Your task to perform on an android device: Search for pizza restaurants on Maps Image 0: 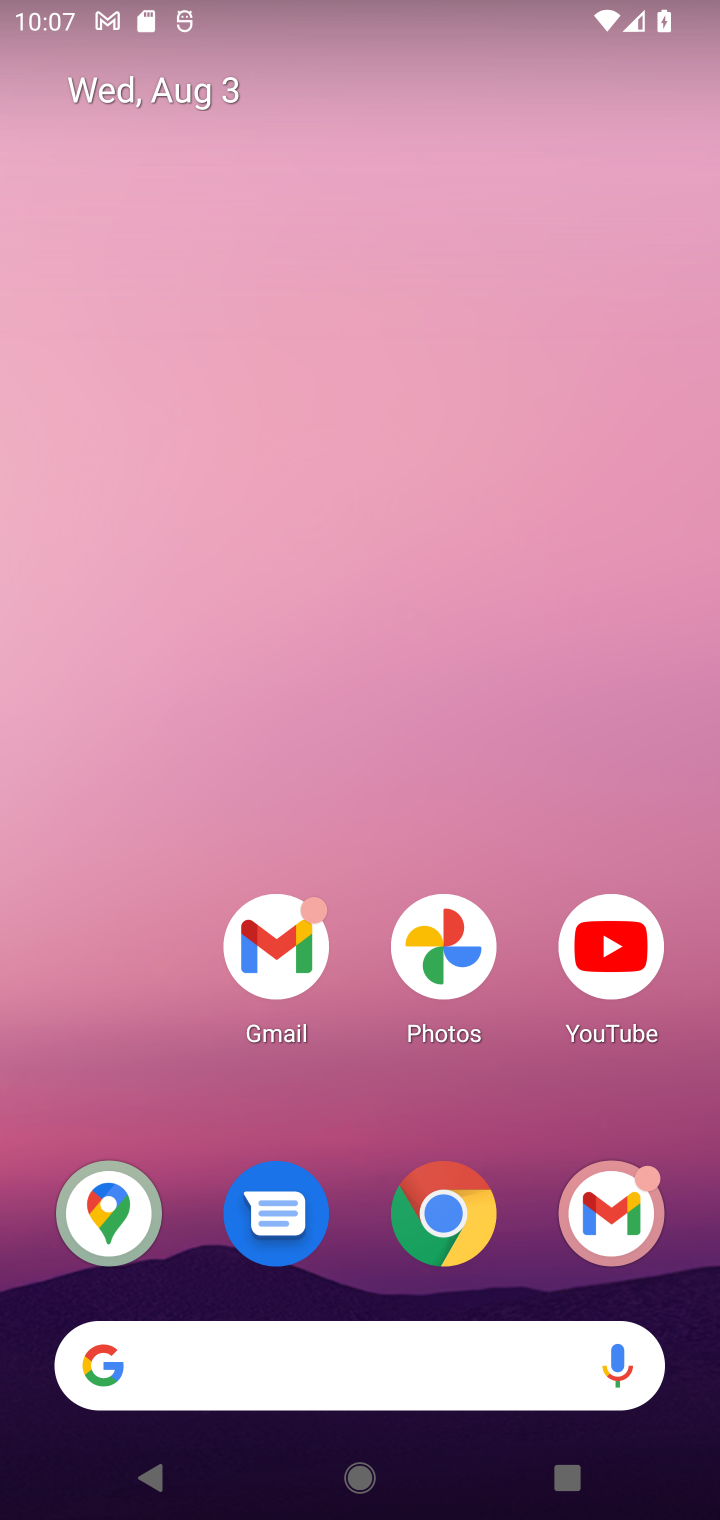
Step 0: press back button
Your task to perform on an android device: Search for pizza restaurants on Maps Image 1: 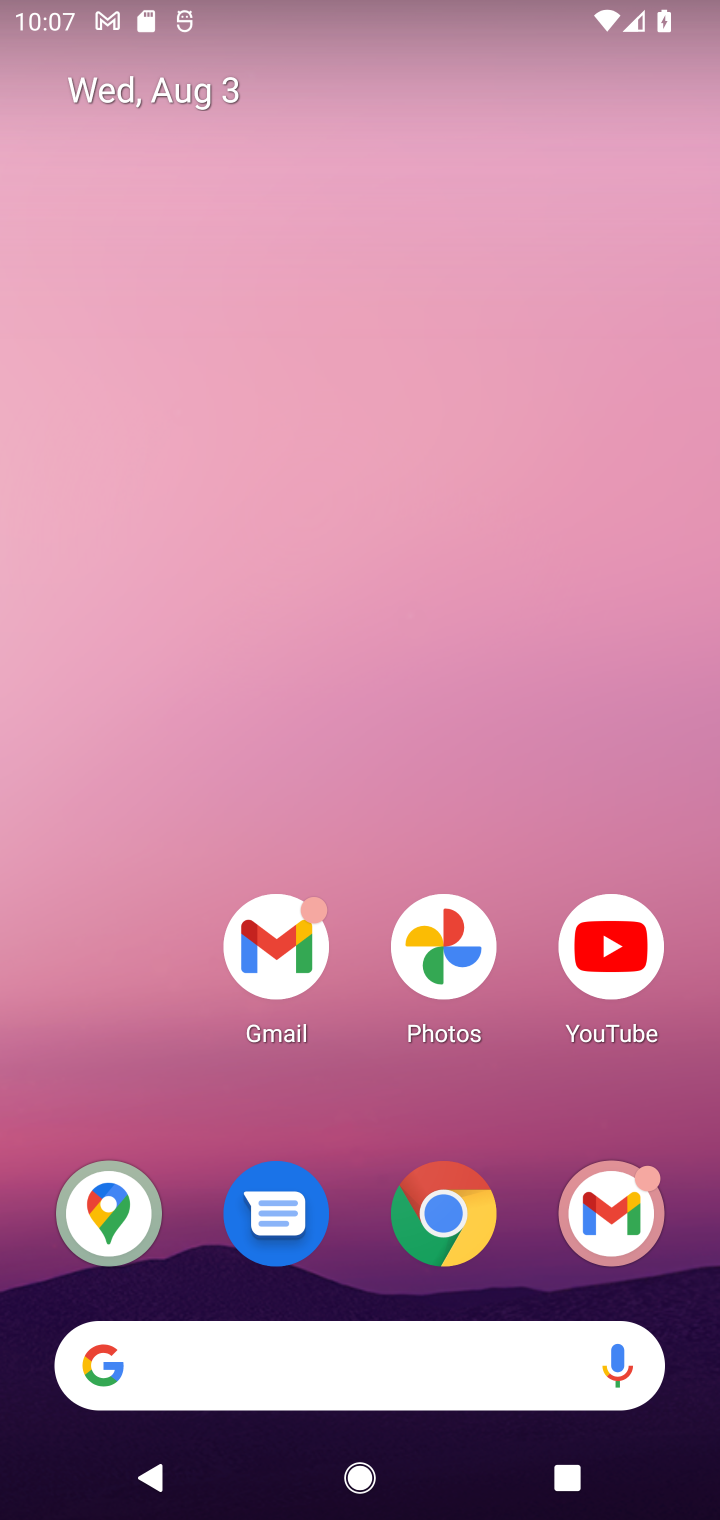
Step 1: drag from (452, 1270) to (501, 298)
Your task to perform on an android device: Search for pizza restaurants on Maps Image 2: 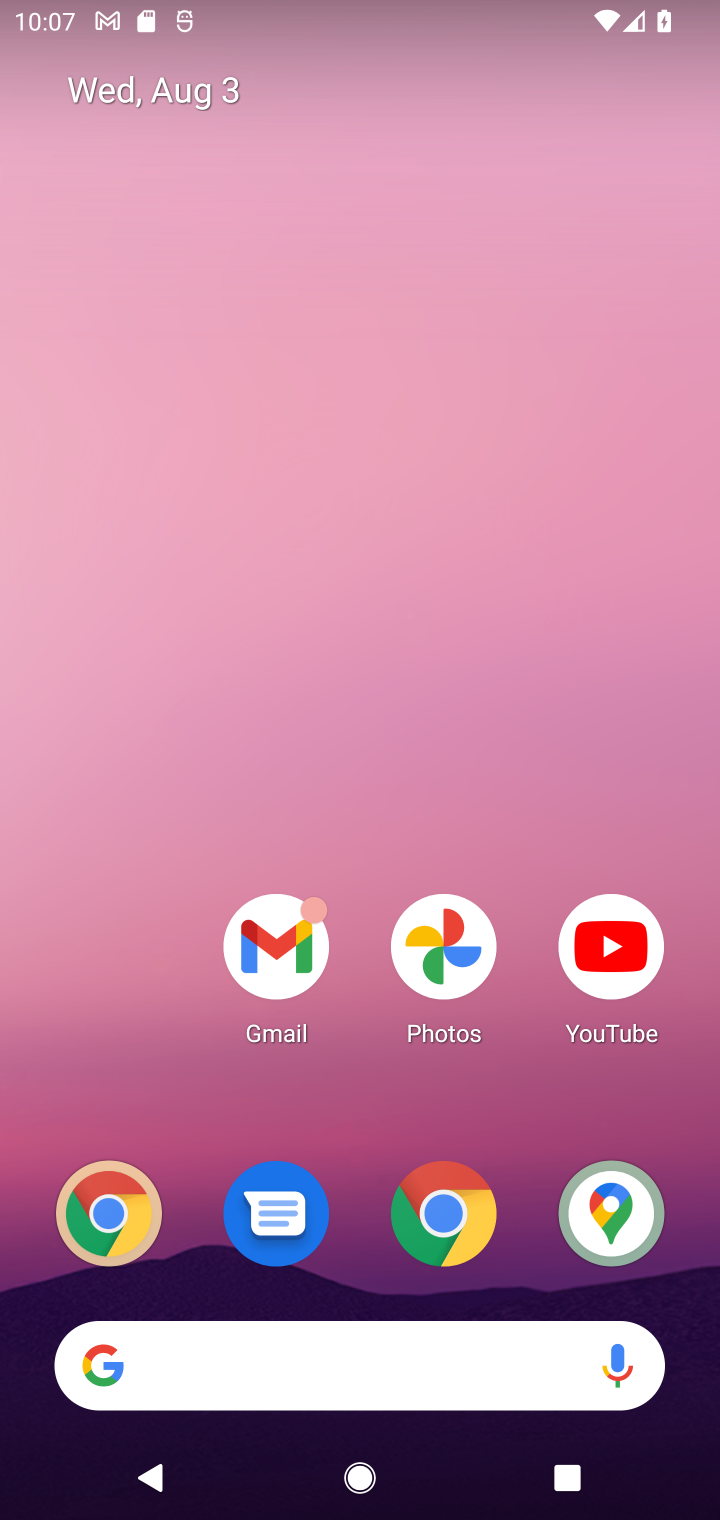
Step 2: click (567, 1060)
Your task to perform on an android device: Search for pizza restaurants on Maps Image 3: 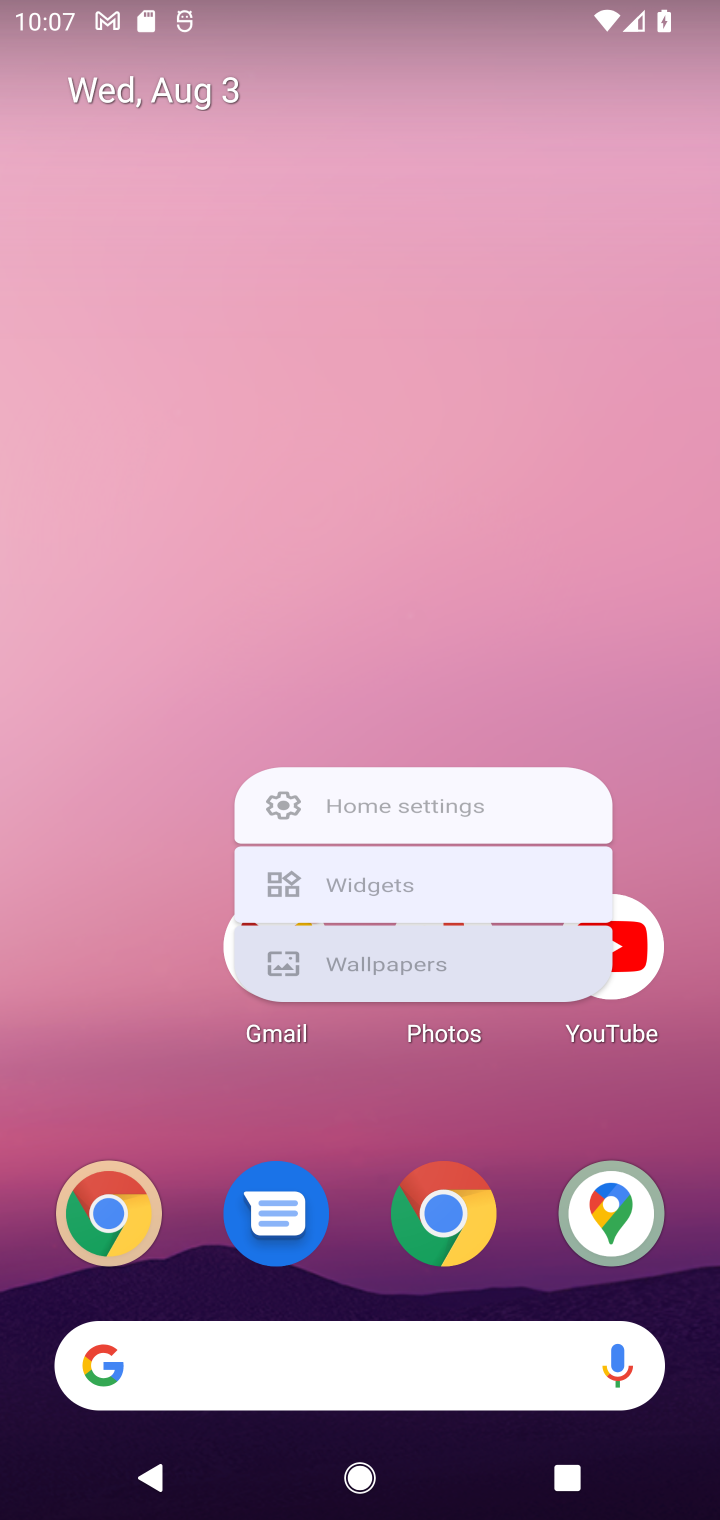
Step 3: click (614, 1186)
Your task to perform on an android device: Search for pizza restaurants on Maps Image 4: 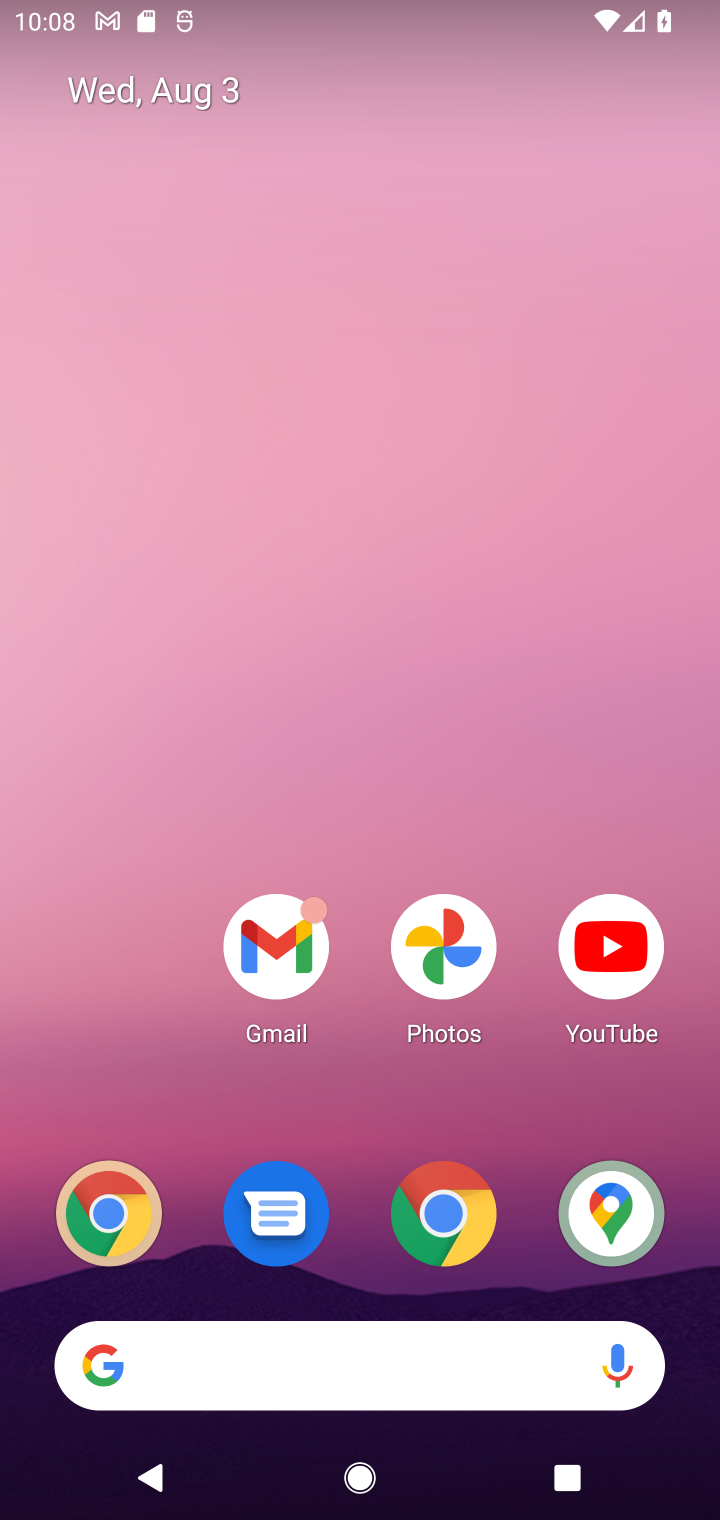
Step 4: drag from (498, 1315) to (462, 37)
Your task to perform on an android device: Search for pizza restaurants on Maps Image 5: 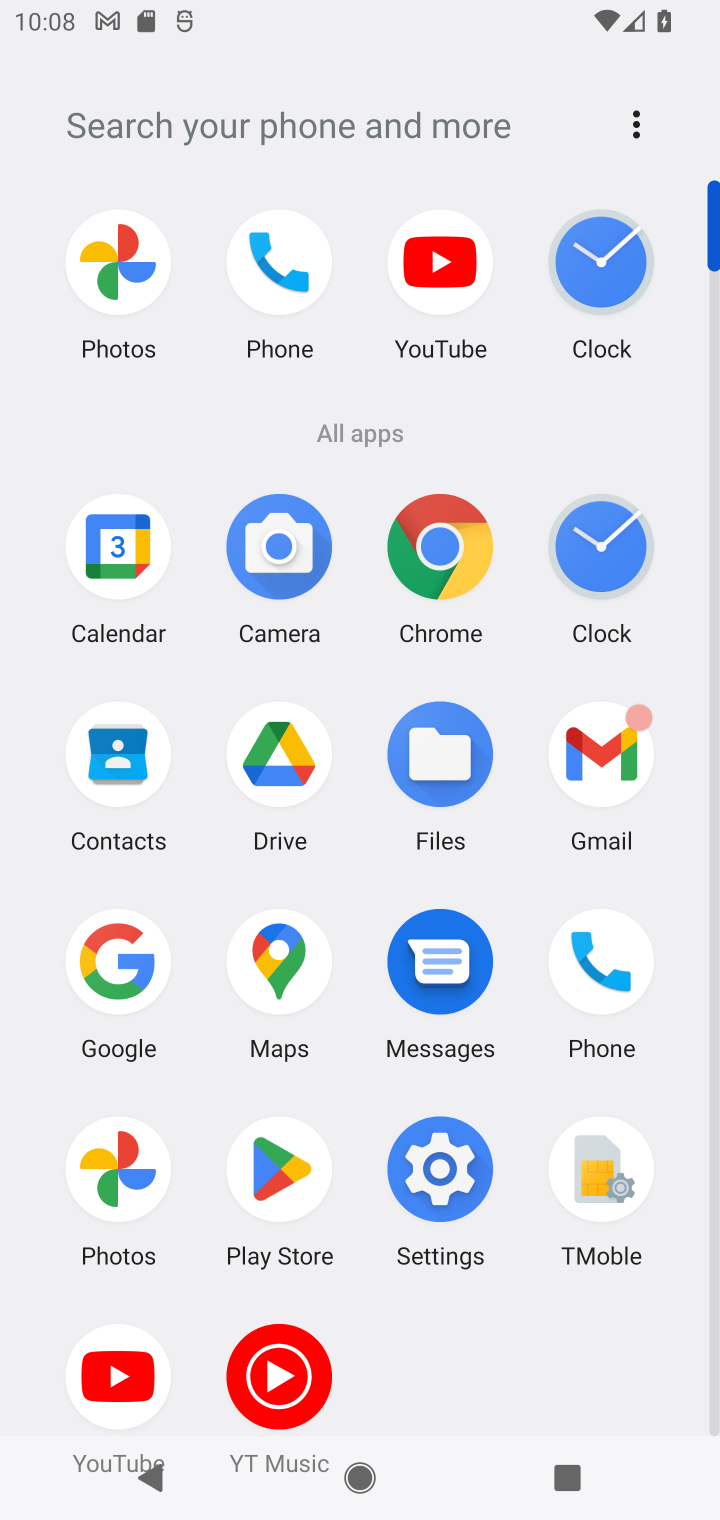
Step 5: click (301, 978)
Your task to perform on an android device: Search for pizza restaurants on Maps Image 6: 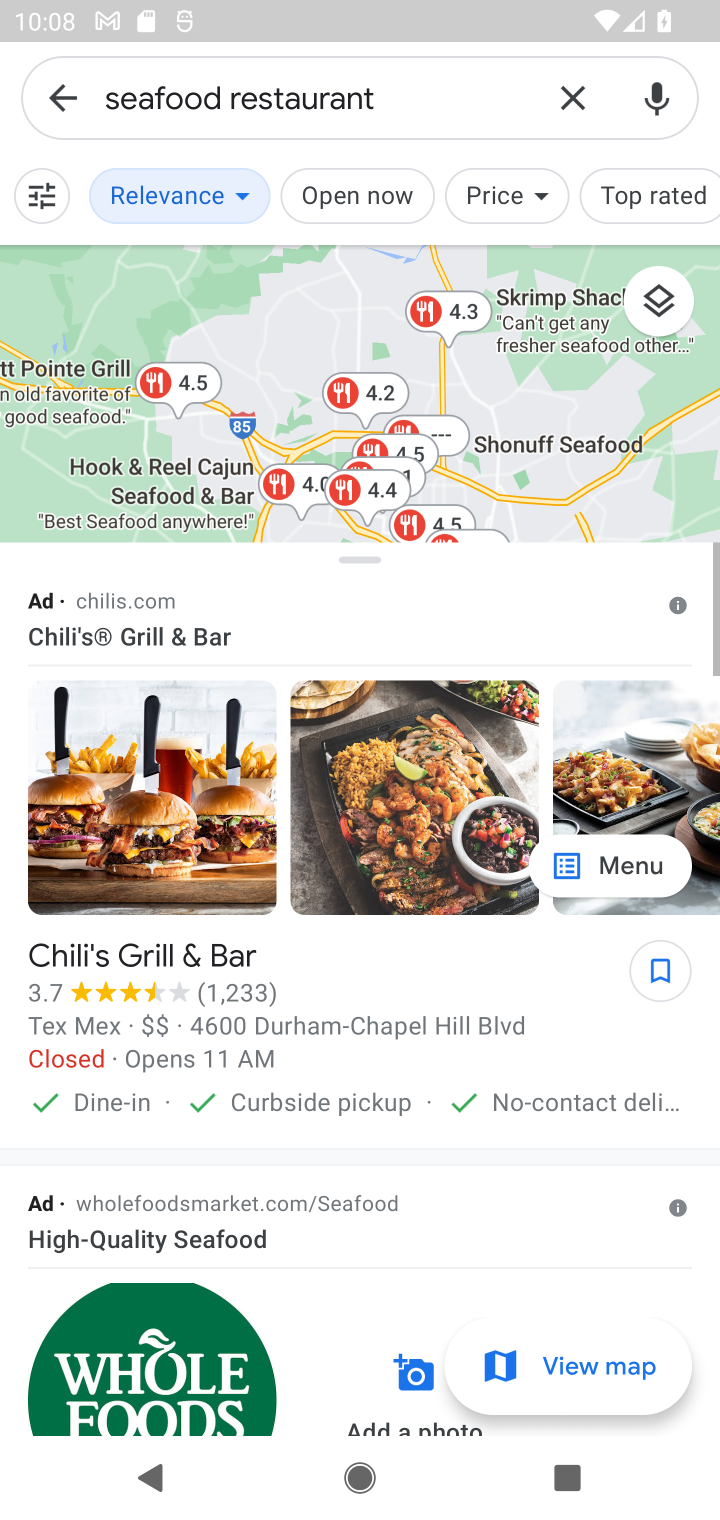
Step 6: click (52, 92)
Your task to perform on an android device: Search for pizza restaurants on Maps Image 7: 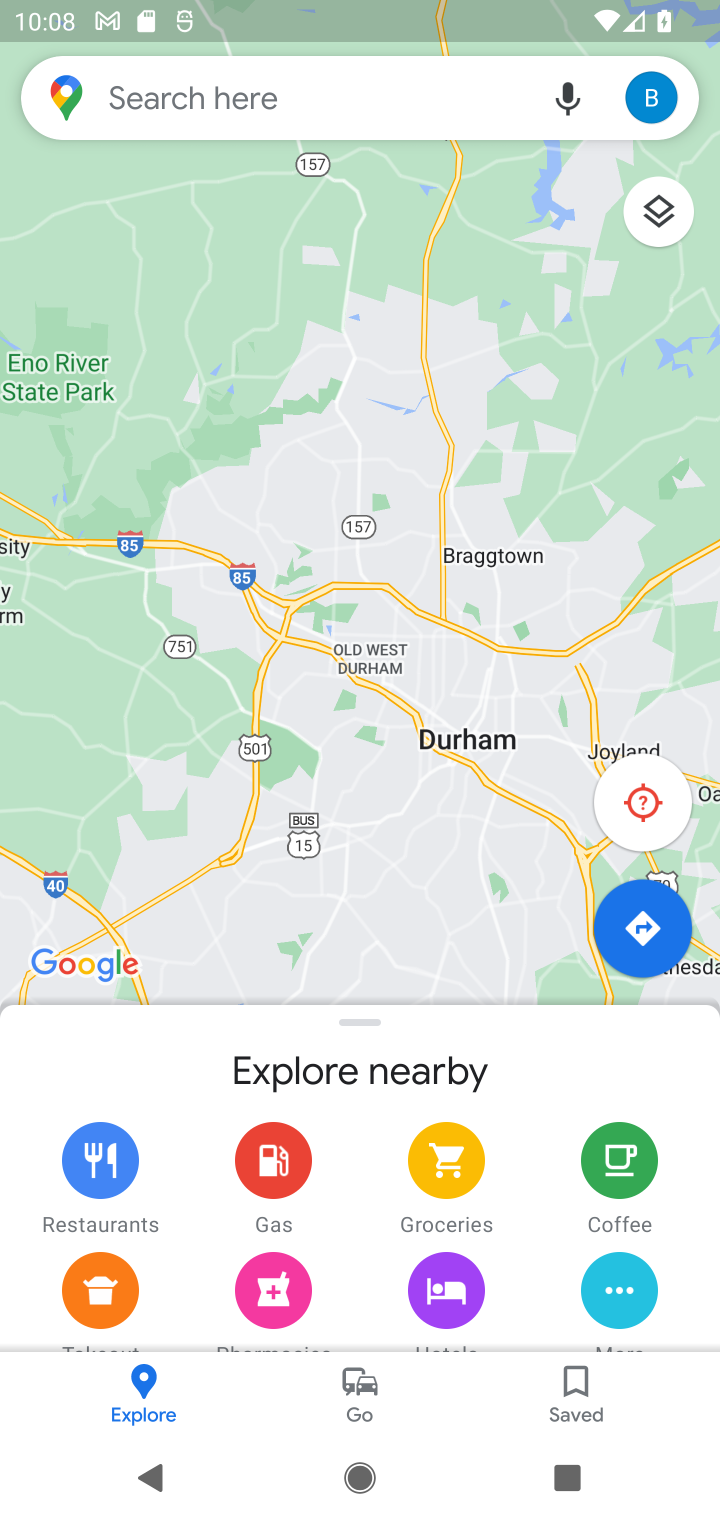
Step 7: click (238, 110)
Your task to perform on an android device: Search for pizza restaurants on Maps Image 8: 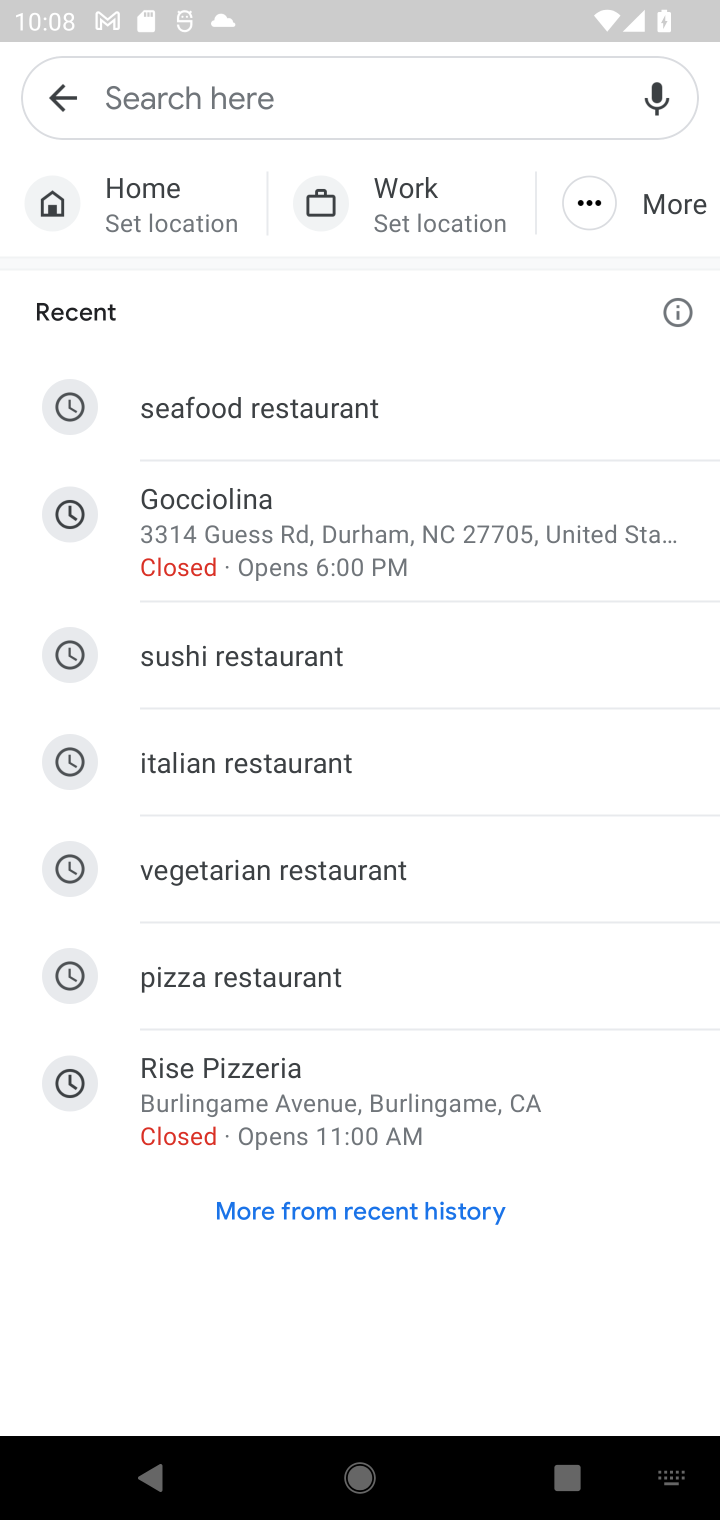
Step 8: type "pizza restauran"
Your task to perform on an android device: Search for pizza restaurants on Maps Image 9: 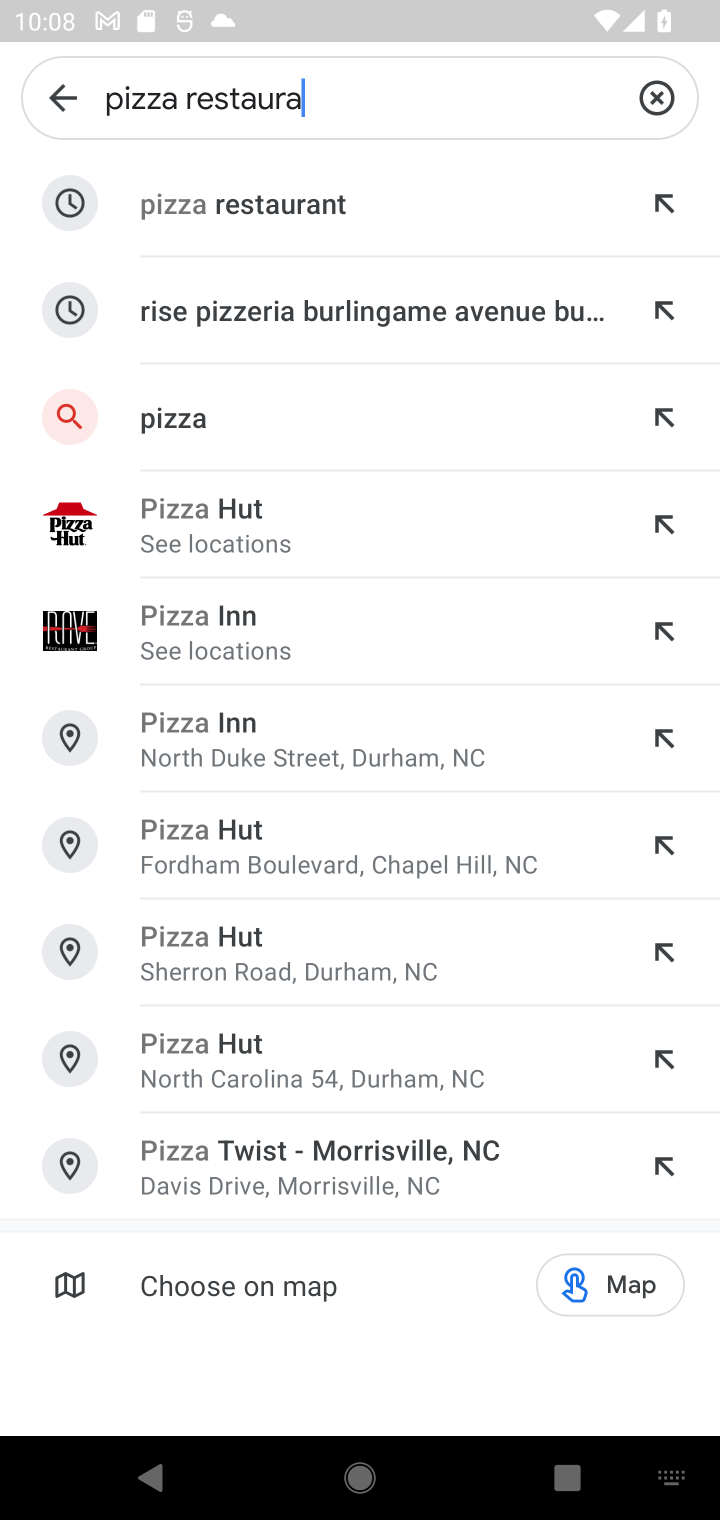
Step 9: type ""
Your task to perform on an android device: Search for pizza restaurants on Maps Image 10: 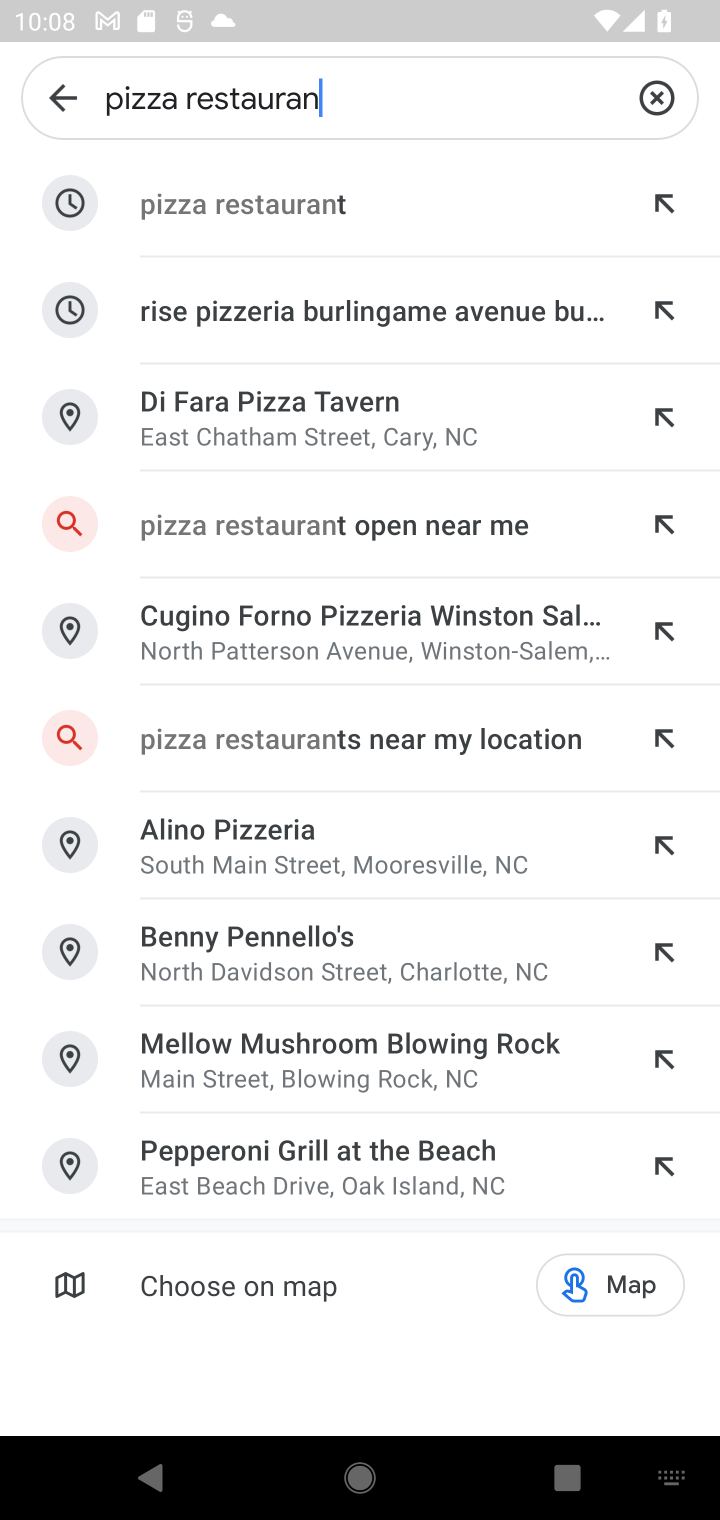
Step 10: click (234, 96)
Your task to perform on an android device: Search for pizza restaurants on Maps Image 11: 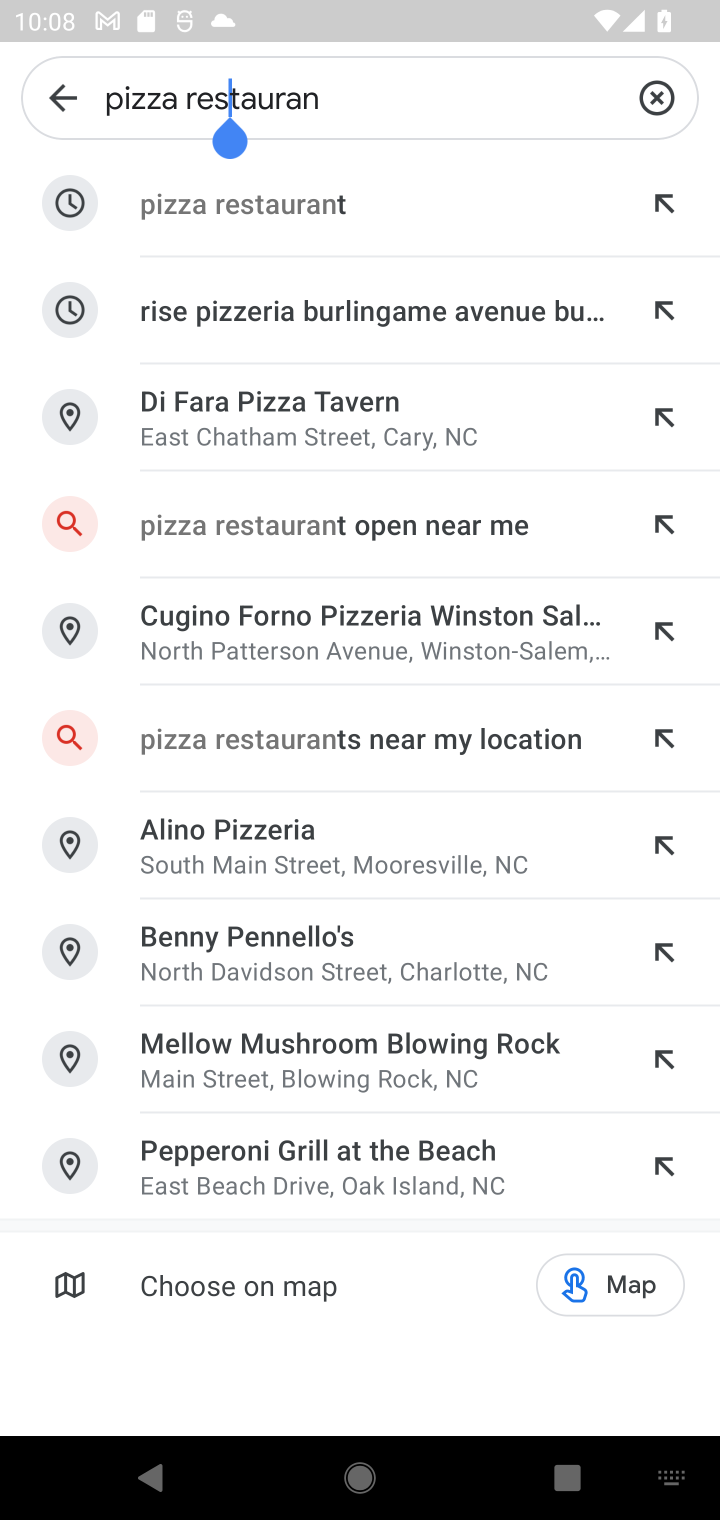
Step 11: click (294, 193)
Your task to perform on an android device: Search for pizza restaurants on Maps Image 12: 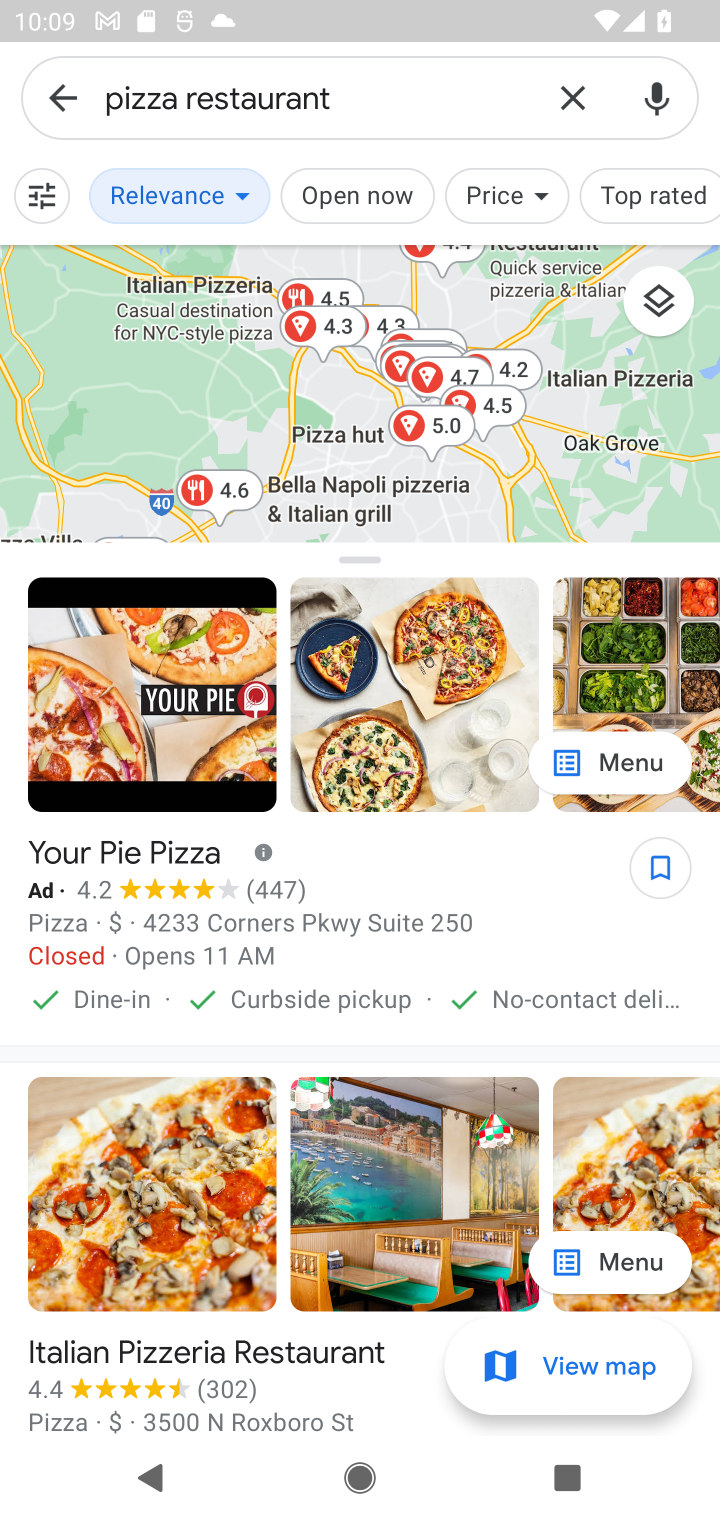
Step 12: task complete